Your task to perform on an android device: Search for sushi restaurants on Maps Image 0: 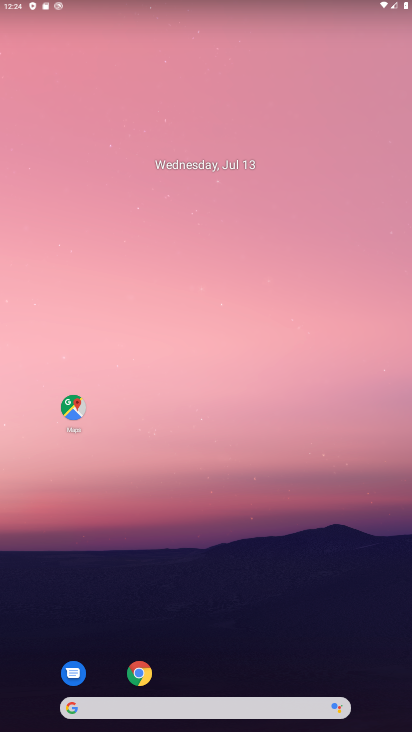
Step 0: drag from (328, 640) to (280, 476)
Your task to perform on an android device: Search for sushi restaurants on Maps Image 1: 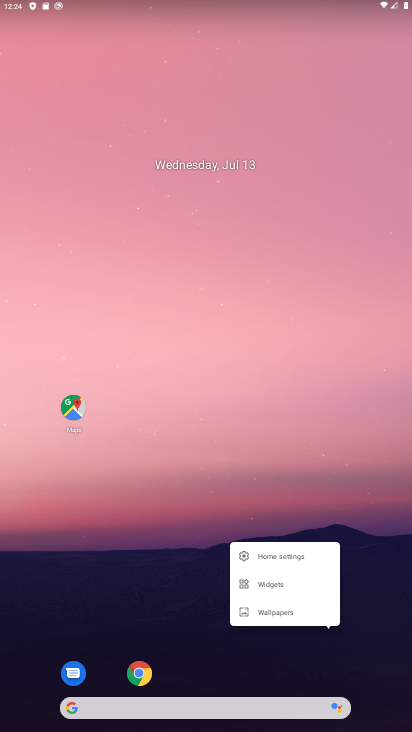
Step 1: click (71, 404)
Your task to perform on an android device: Search for sushi restaurants on Maps Image 2: 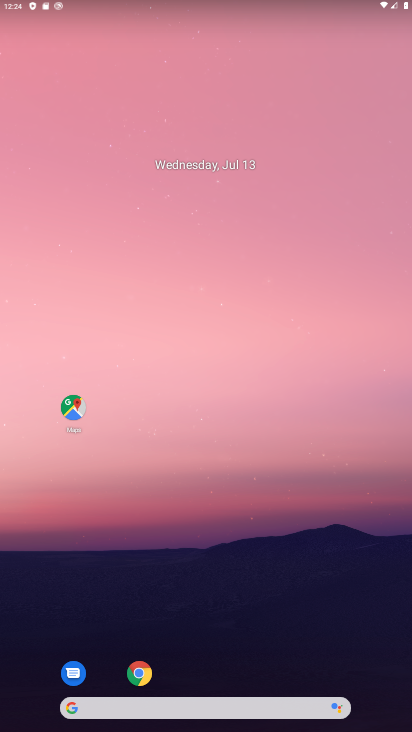
Step 2: click (71, 404)
Your task to perform on an android device: Search for sushi restaurants on Maps Image 3: 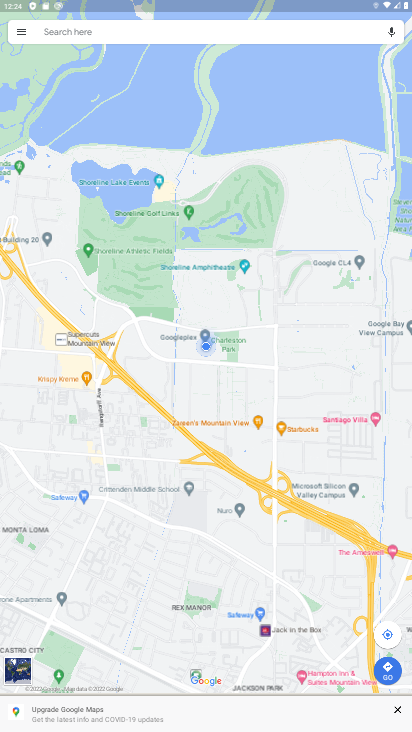
Step 3: click (210, 32)
Your task to perform on an android device: Search for sushi restaurants on Maps Image 4: 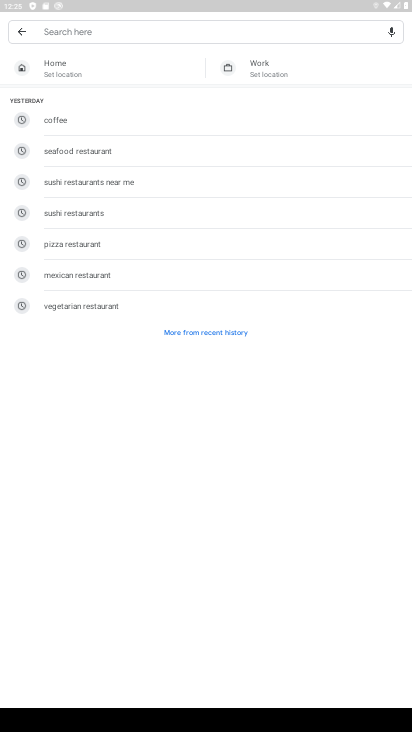
Step 4: type "SUSHI"
Your task to perform on an android device: Search for sushi restaurants on Maps Image 5: 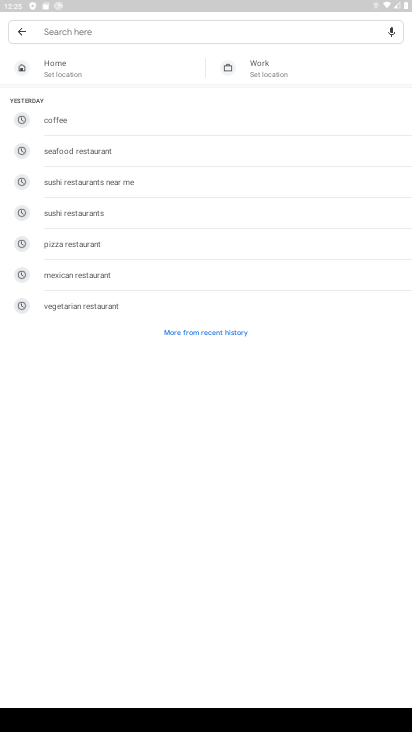
Step 5: click (107, 175)
Your task to perform on an android device: Search for sushi restaurants on Maps Image 6: 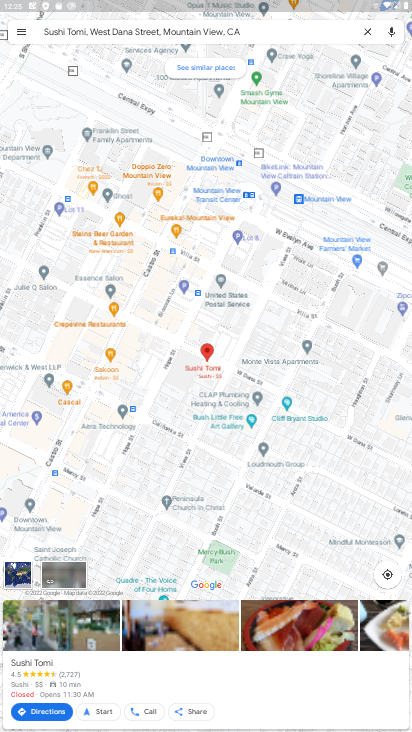
Step 6: task complete